Your task to perform on an android device: open device folders in google photos Image 0: 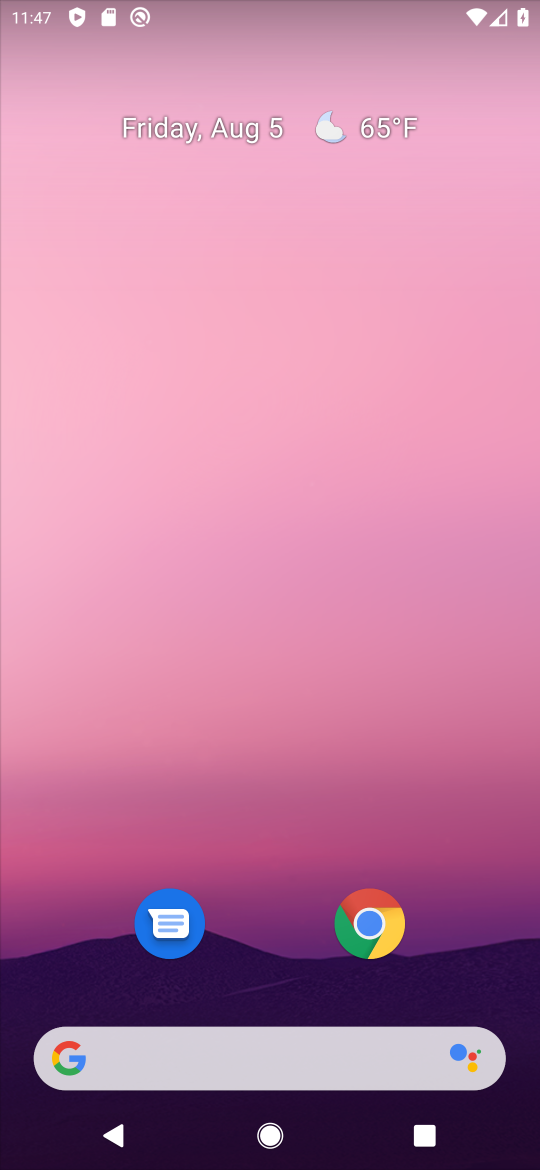
Step 0: drag from (480, 938) to (385, 479)
Your task to perform on an android device: open device folders in google photos Image 1: 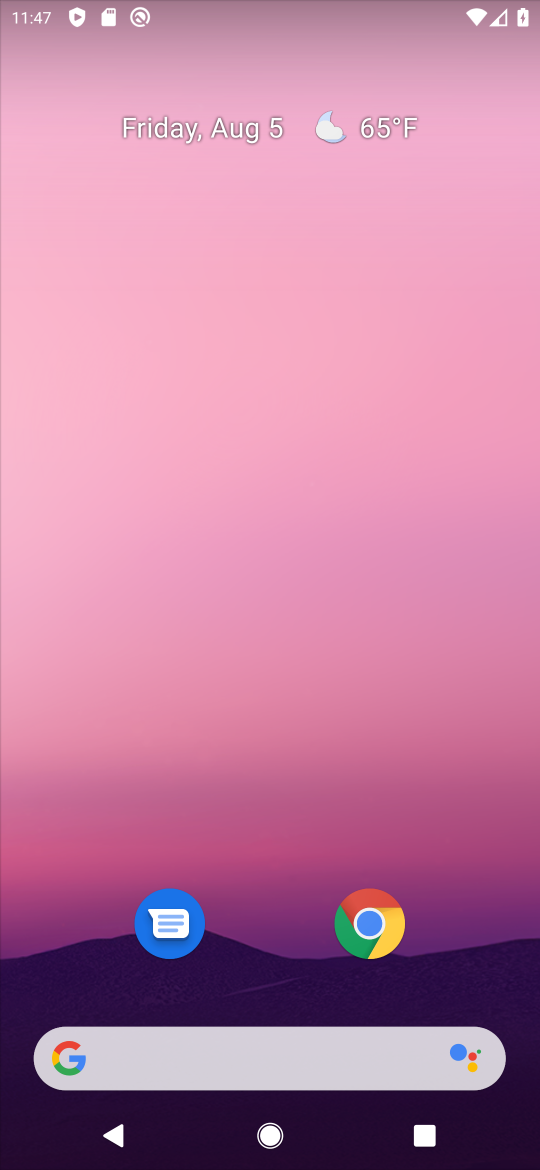
Step 1: drag from (490, 974) to (369, 213)
Your task to perform on an android device: open device folders in google photos Image 2: 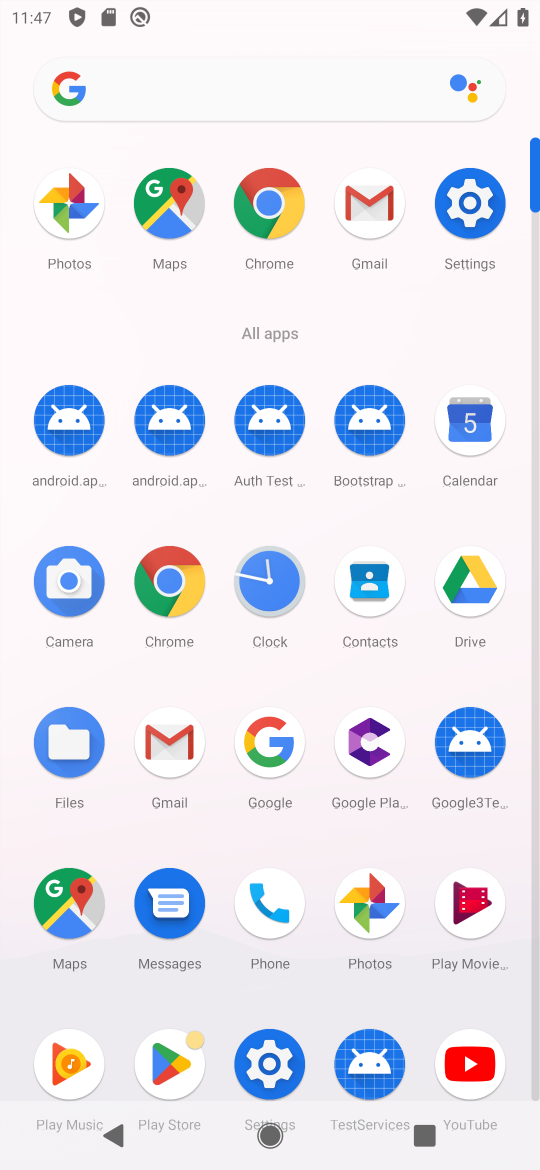
Step 2: click (65, 198)
Your task to perform on an android device: open device folders in google photos Image 3: 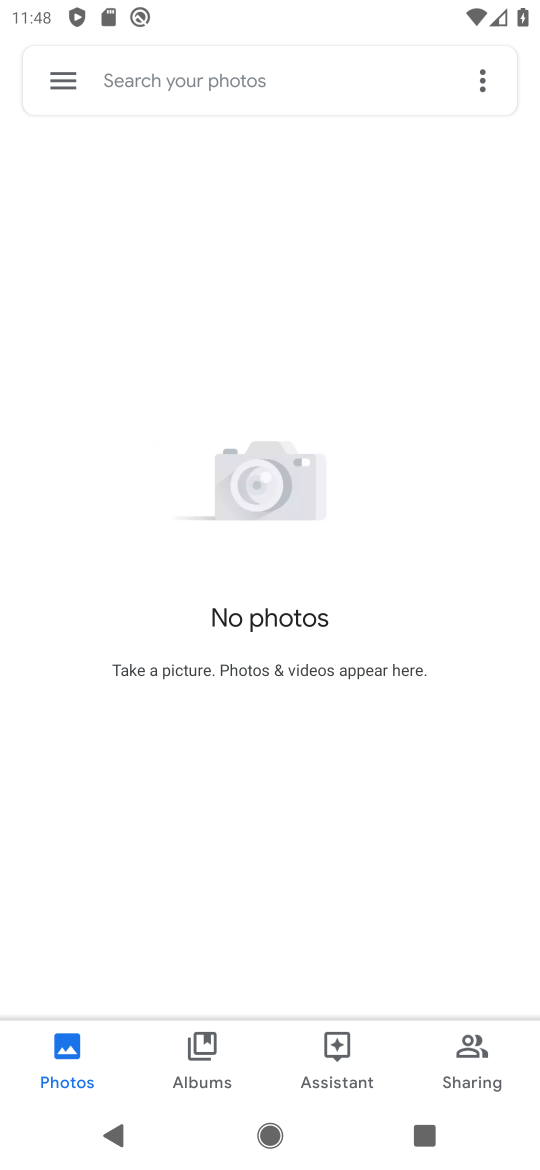
Step 3: click (60, 85)
Your task to perform on an android device: open device folders in google photos Image 4: 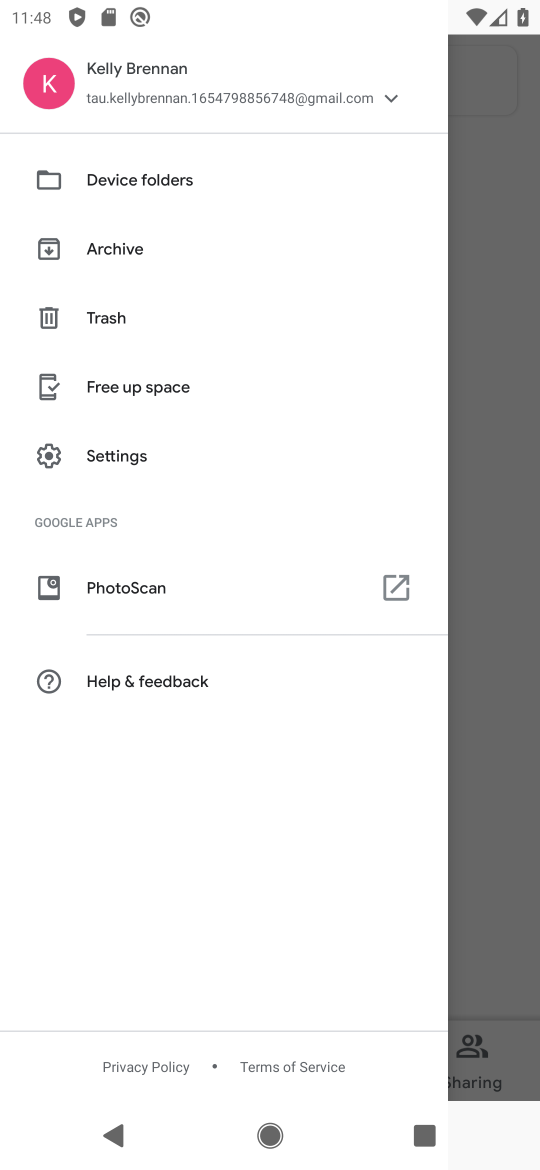
Step 4: click (111, 187)
Your task to perform on an android device: open device folders in google photos Image 5: 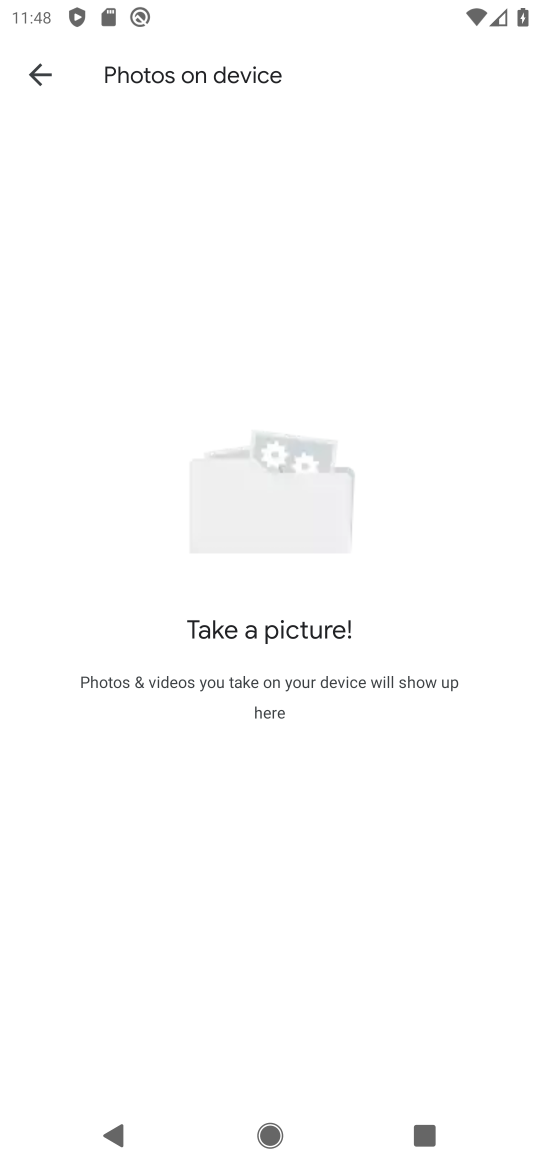
Step 5: task complete